Your task to perform on an android device: toggle translation in the chrome app Image 0: 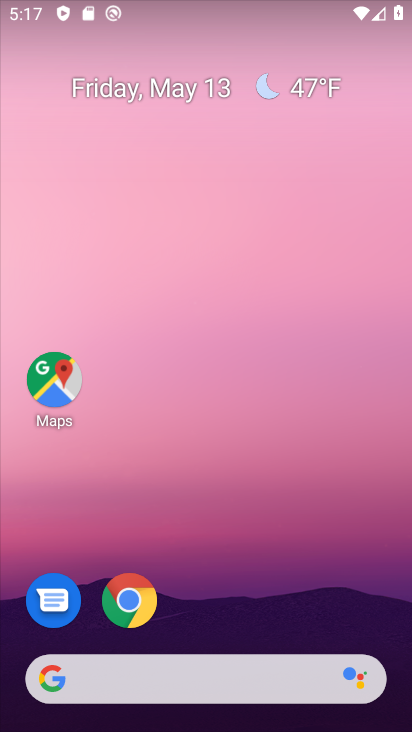
Step 0: click (149, 604)
Your task to perform on an android device: toggle translation in the chrome app Image 1: 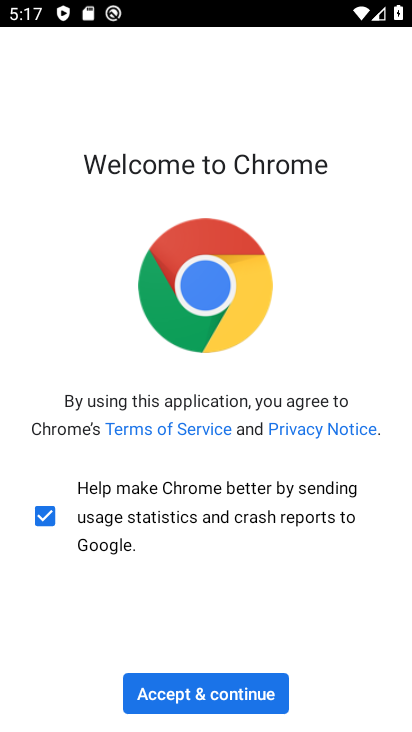
Step 1: click (219, 686)
Your task to perform on an android device: toggle translation in the chrome app Image 2: 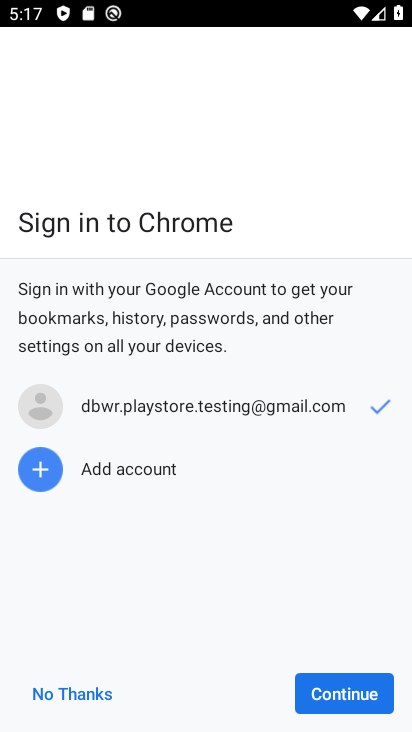
Step 2: click (324, 705)
Your task to perform on an android device: toggle translation in the chrome app Image 3: 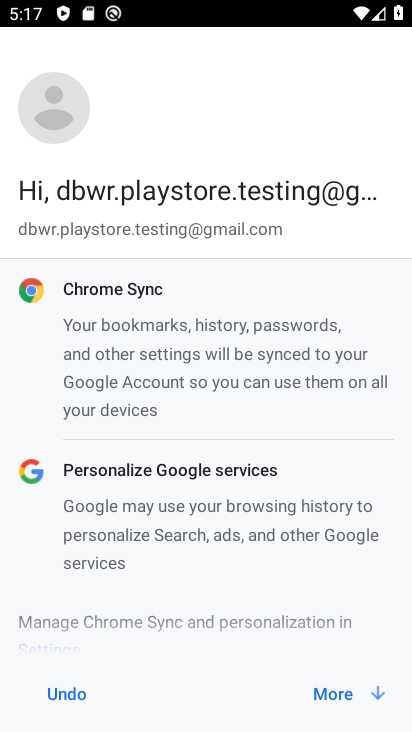
Step 3: click (324, 703)
Your task to perform on an android device: toggle translation in the chrome app Image 4: 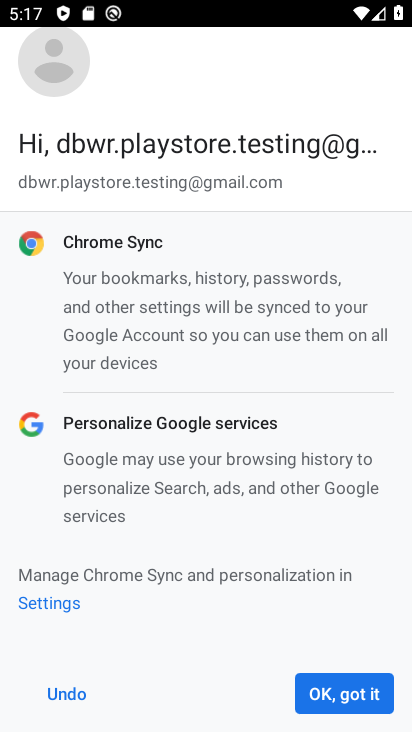
Step 4: click (324, 703)
Your task to perform on an android device: toggle translation in the chrome app Image 5: 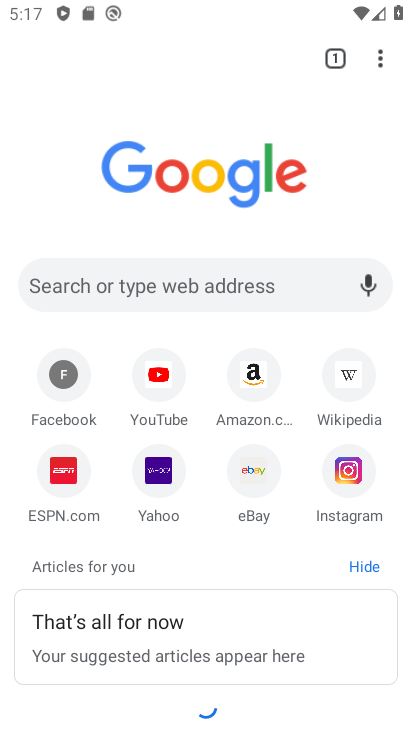
Step 5: drag from (397, 68) to (276, 486)
Your task to perform on an android device: toggle translation in the chrome app Image 6: 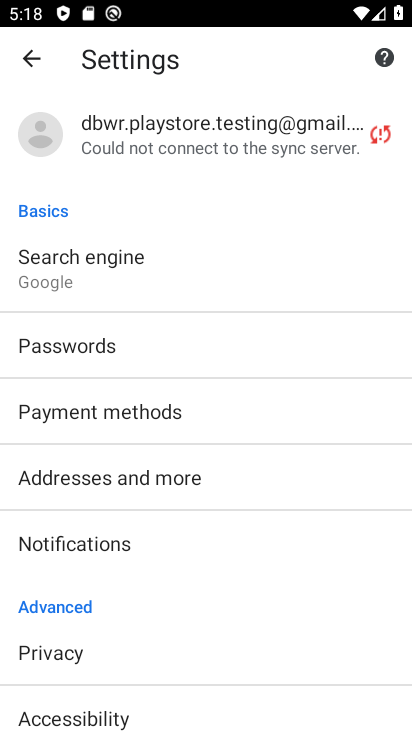
Step 6: drag from (214, 635) to (318, 329)
Your task to perform on an android device: toggle translation in the chrome app Image 7: 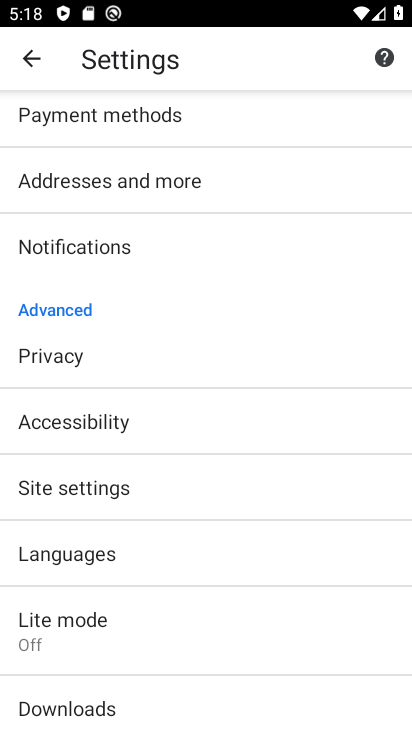
Step 7: drag from (149, 616) to (246, 346)
Your task to perform on an android device: toggle translation in the chrome app Image 8: 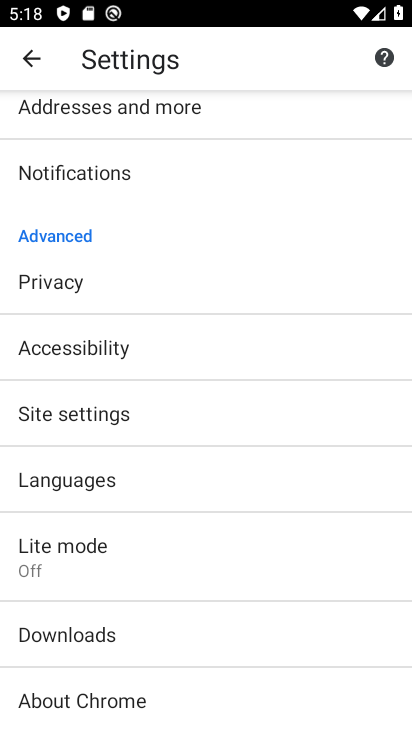
Step 8: click (125, 473)
Your task to perform on an android device: toggle translation in the chrome app Image 9: 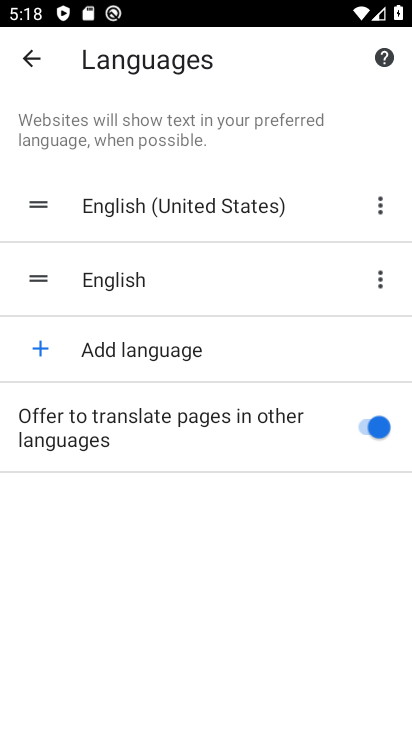
Step 9: click (361, 428)
Your task to perform on an android device: toggle translation in the chrome app Image 10: 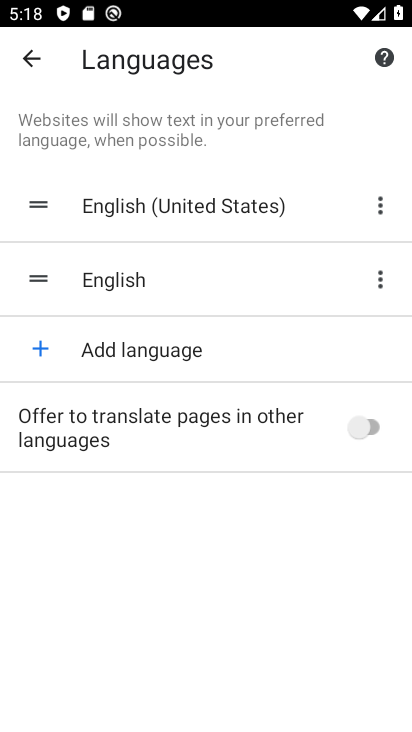
Step 10: task complete